Your task to perform on an android device: turn off translation in the chrome app Image 0: 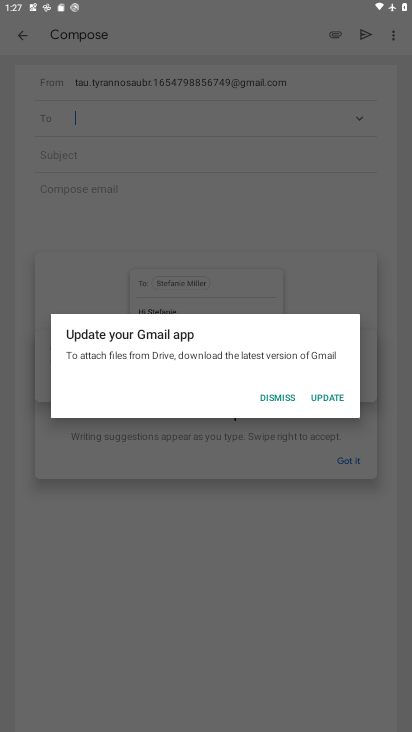
Step 0: press home button
Your task to perform on an android device: turn off translation in the chrome app Image 1: 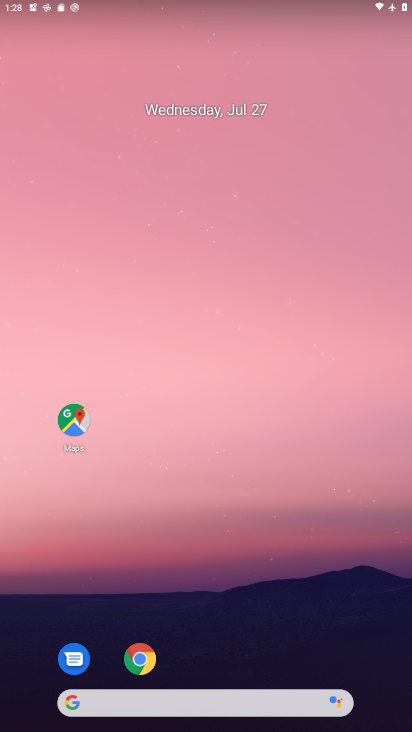
Step 1: task complete